Your task to perform on an android device: Go to privacy settings Image 0: 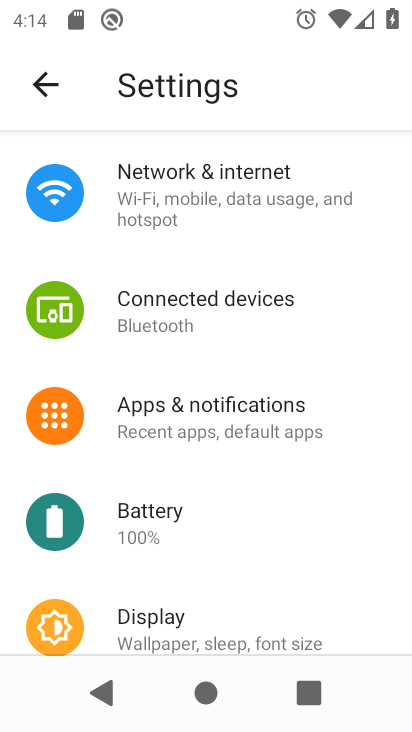
Step 0: drag from (232, 508) to (266, 55)
Your task to perform on an android device: Go to privacy settings Image 1: 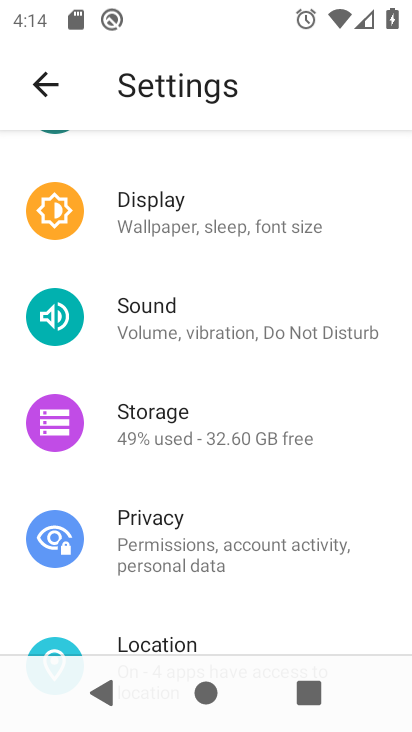
Step 1: click (255, 515)
Your task to perform on an android device: Go to privacy settings Image 2: 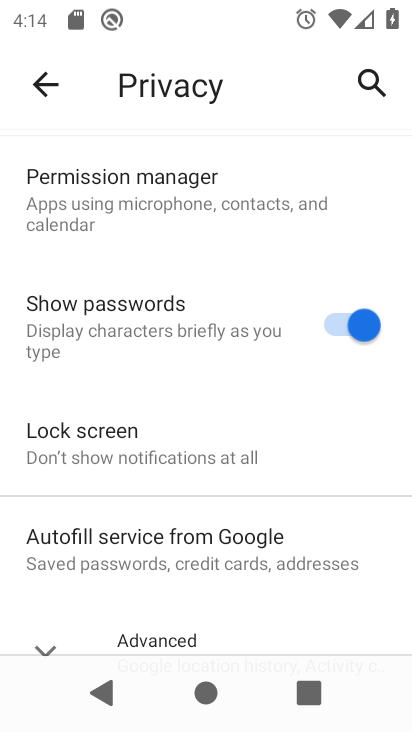
Step 2: task complete